Your task to perform on an android device: check out phone information Image 0: 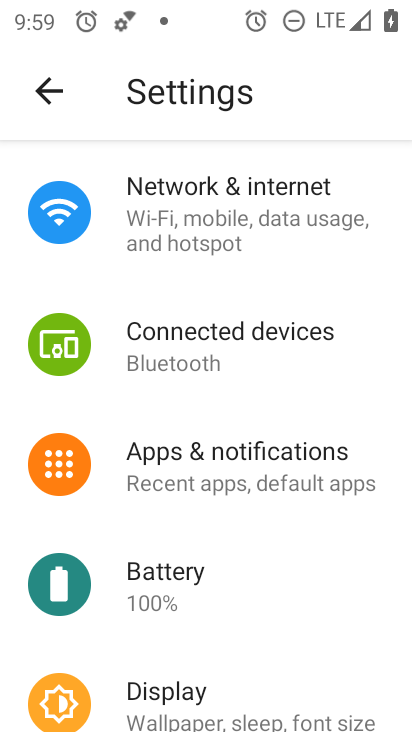
Step 0: drag from (249, 538) to (241, 151)
Your task to perform on an android device: check out phone information Image 1: 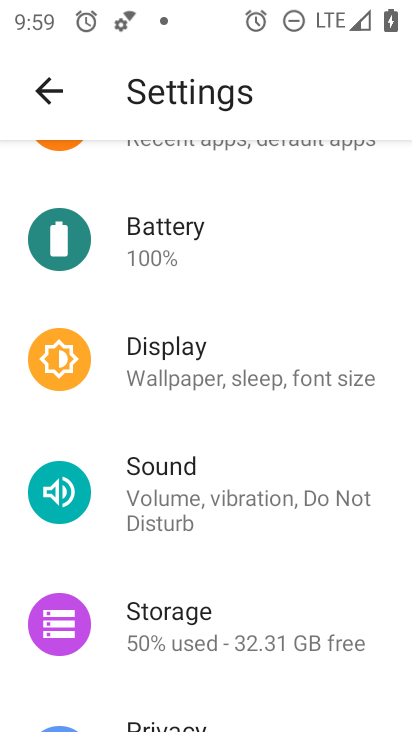
Step 1: drag from (310, 583) to (279, 158)
Your task to perform on an android device: check out phone information Image 2: 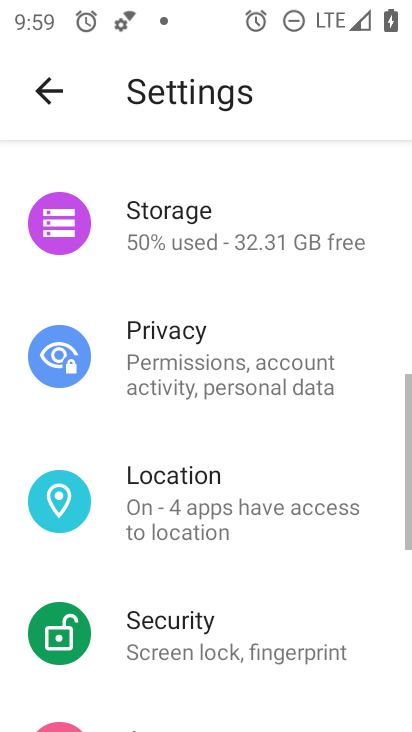
Step 2: drag from (306, 625) to (301, 115)
Your task to perform on an android device: check out phone information Image 3: 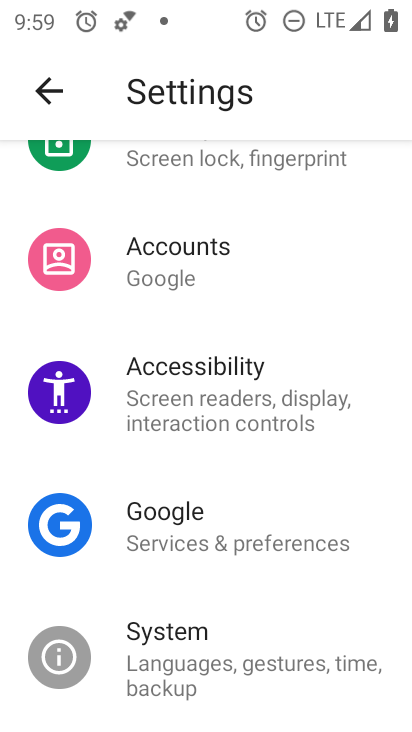
Step 3: drag from (262, 612) to (289, 156)
Your task to perform on an android device: check out phone information Image 4: 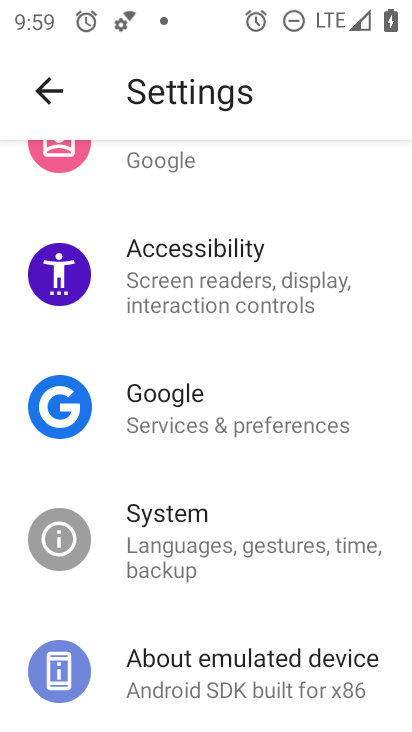
Step 4: click (240, 635)
Your task to perform on an android device: check out phone information Image 5: 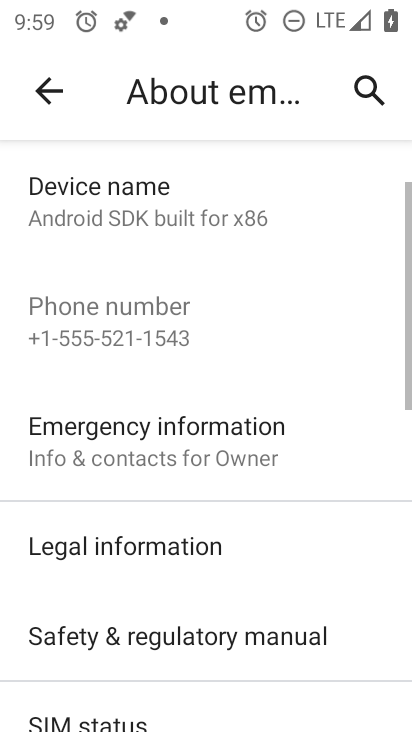
Step 5: task complete